Your task to perform on an android device: check google app version Image 0: 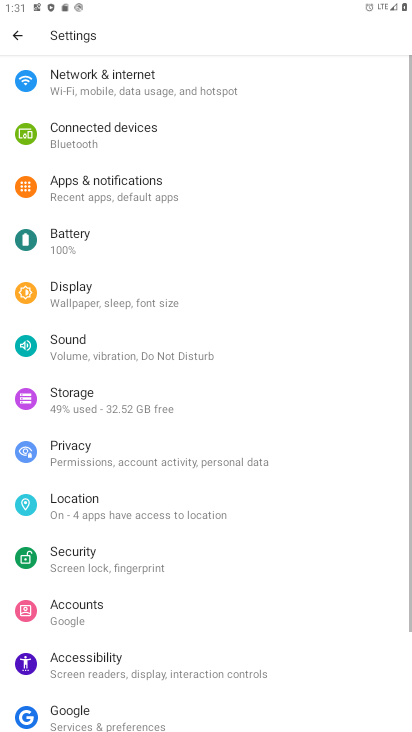
Step 0: press home button
Your task to perform on an android device: check google app version Image 1: 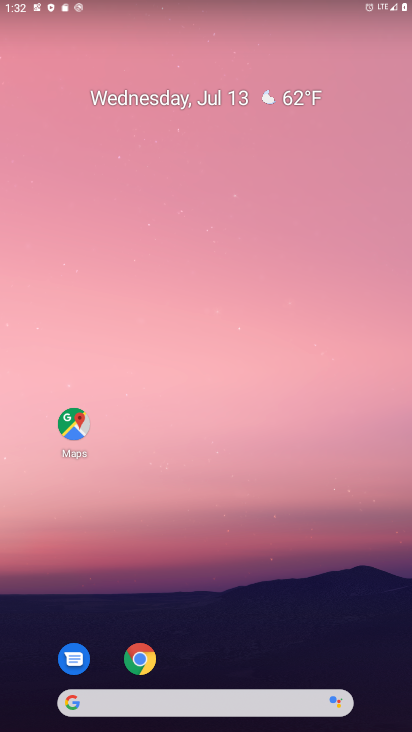
Step 1: drag from (214, 723) to (212, 108)
Your task to perform on an android device: check google app version Image 2: 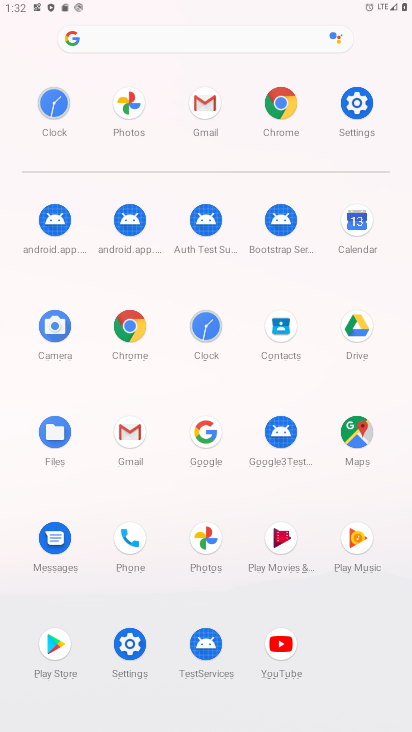
Step 2: click (206, 444)
Your task to perform on an android device: check google app version Image 3: 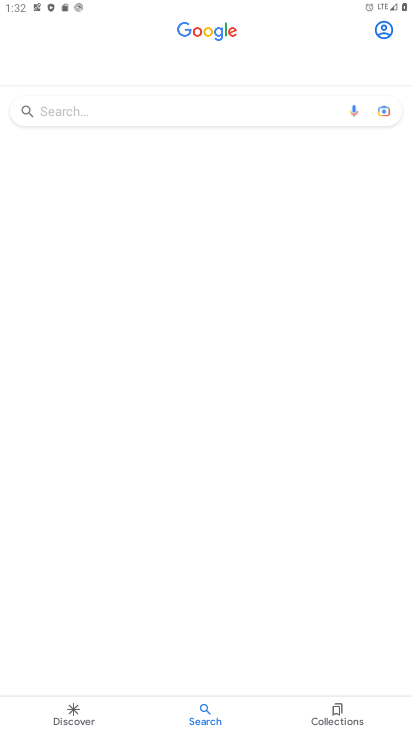
Step 3: click (384, 30)
Your task to perform on an android device: check google app version Image 4: 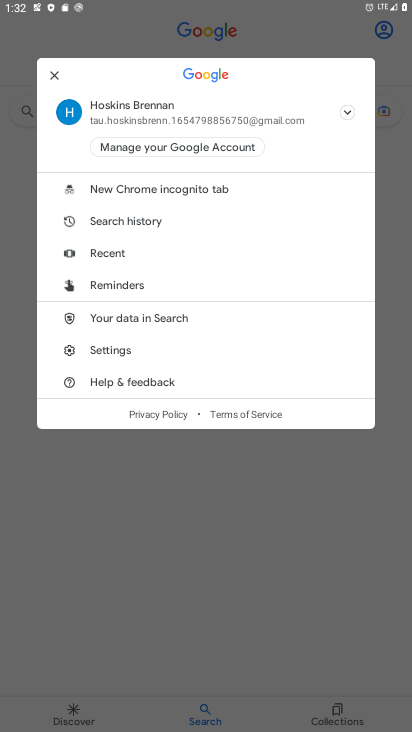
Step 4: click (103, 350)
Your task to perform on an android device: check google app version Image 5: 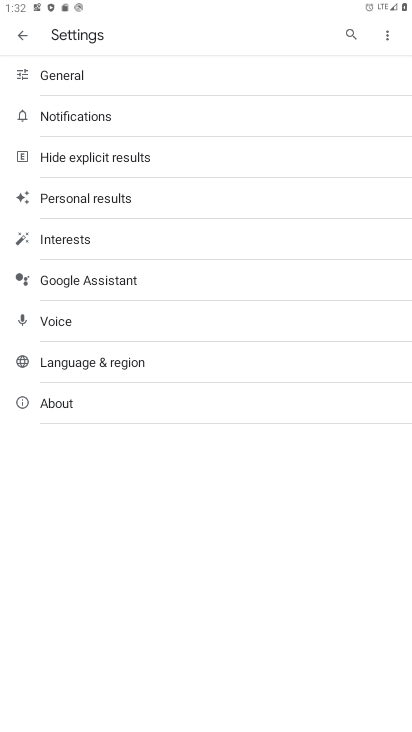
Step 5: click (61, 404)
Your task to perform on an android device: check google app version Image 6: 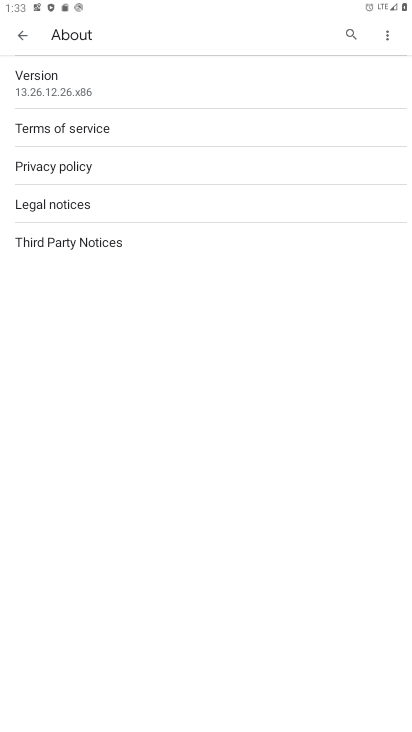
Step 6: task complete